Your task to perform on an android device: visit the assistant section in the google photos Image 0: 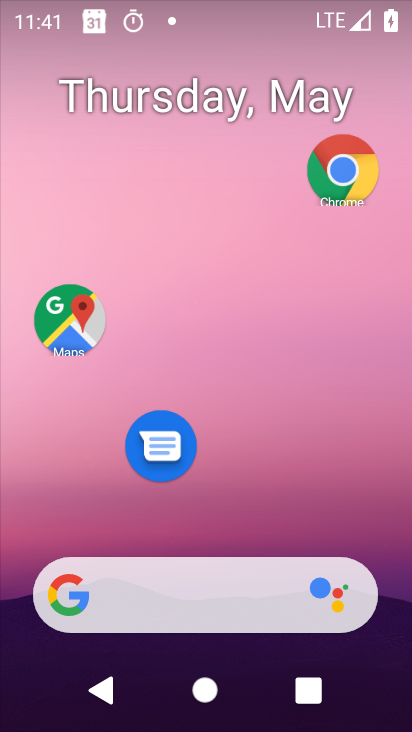
Step 0: drag from (314, 587) to (343, 0)
Your task to perform on an android device: visit the assistant section in the google photos Image 1: 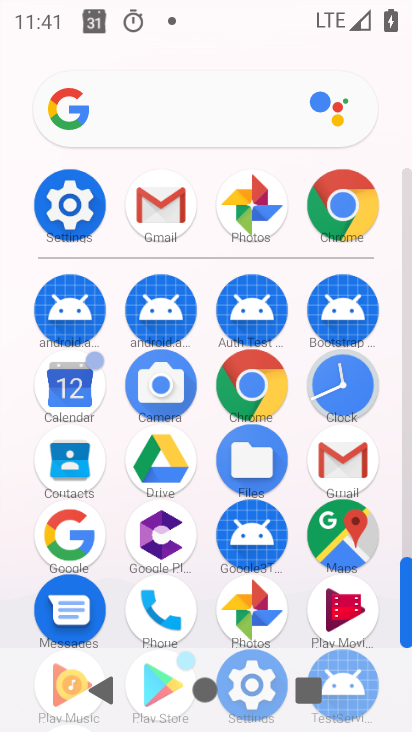
Step 1: click (259, 619)
Your task to perform on an android device: visit the assistant section in the google photos Image 2: 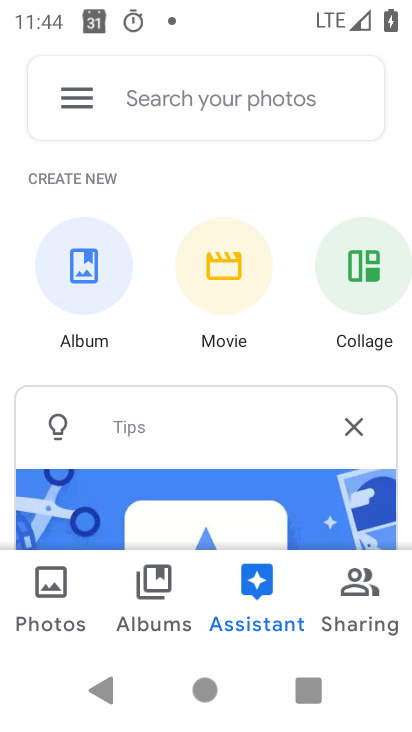
Step 2: task complete